Your task to perform on an android device: When is my next appointment? Image 0: 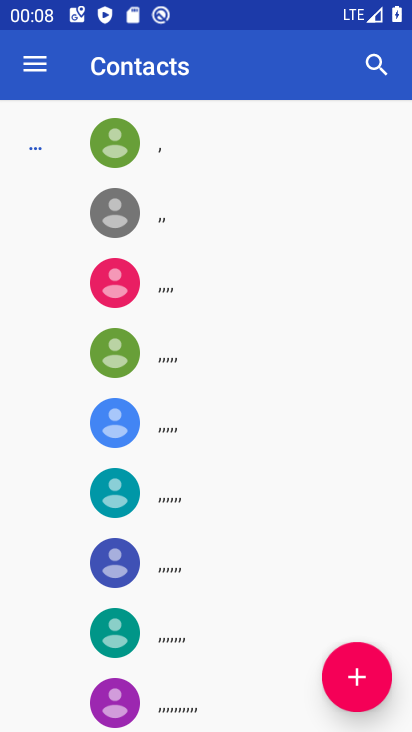
Step 0: drag from (272, 638) to (180, 214)
Your task to perform on an android device: When is my next appointment? Image 1: 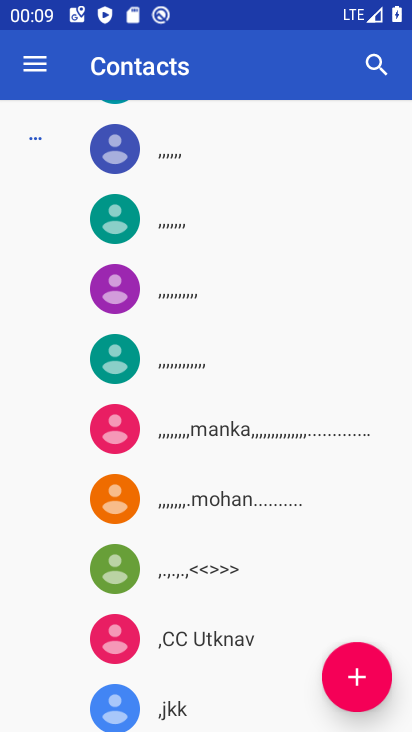
Step 1: press home button
Your task to perform on an android device: When is my next appointment? Image 2: 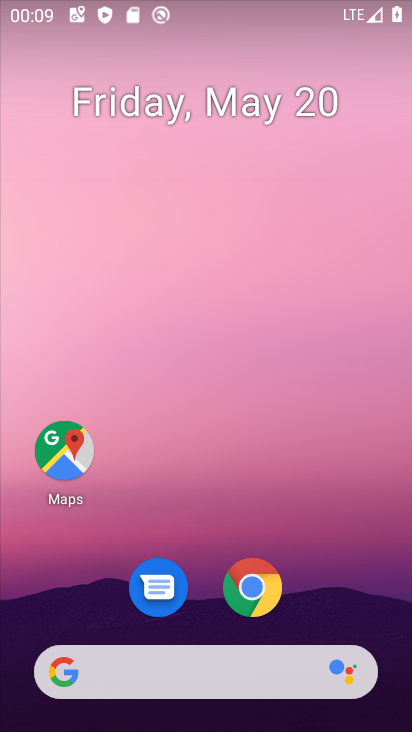
Step 2: drag from (244, 687) to (200, 199)
Your task to perform on an android device: When is my next appointment? Image 3: 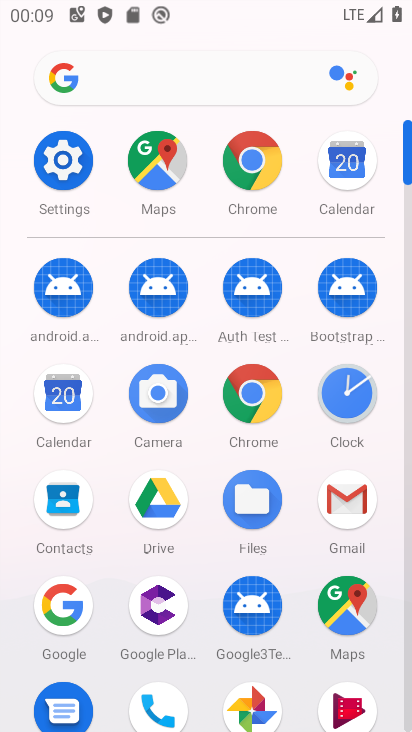
Step 3: click (76, 399)
Your task to perform on an android device: When is my next appointment? Image 4: 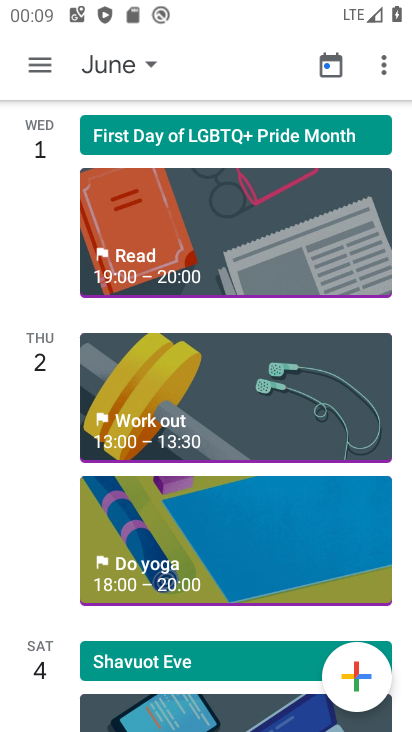
Step 4: click (36, 58)
Your task to perform on an android device: When is my next appointment? Image 5: 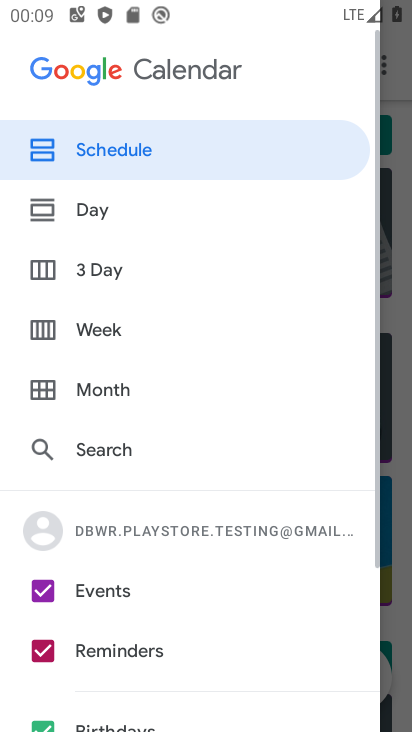
Step 5: click (119, 390)
Your task to perform on an android device: When is my next appointment? Image 6: 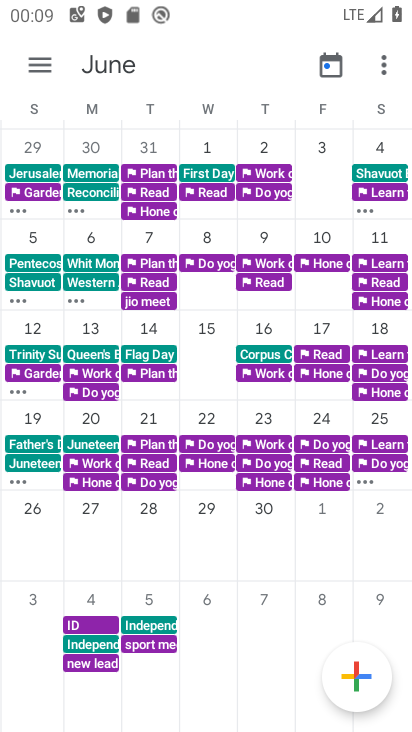
Step 6: drag from (22, 322) to (394, 330)
Your task to perform on an android device: When is my next appointment? Image 7: 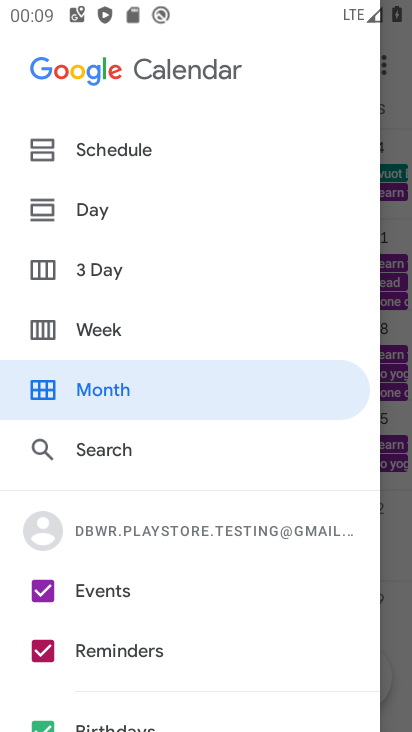
Step 7: drag from (382, 369) to (40, 376)
Your task to perform on an android device: When is my next appointment? Image 8: 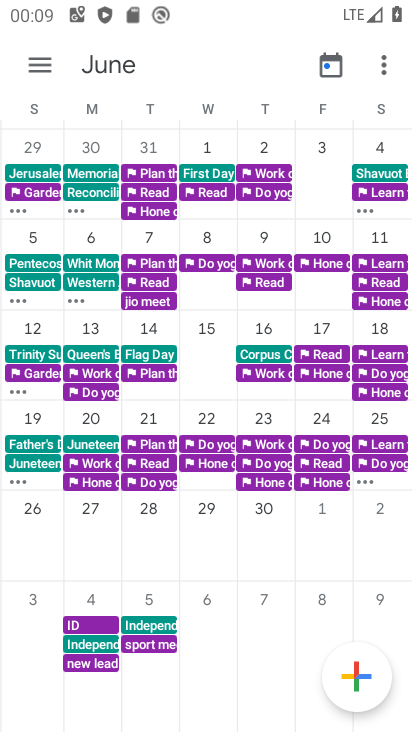
Step 8: drag from (130, 398) to (0, 458)
Your task to perform on an android device: When is my next appointment? Image 9: 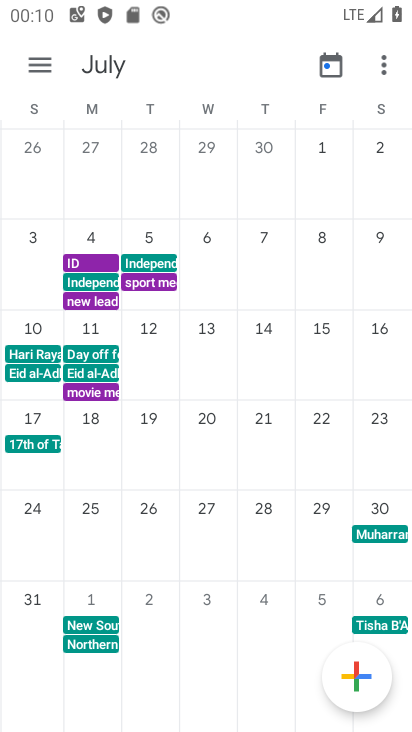
Step 9: drag from (42, 421) to (411, 407)
Your task to perform on an android device: When is my next appointment? Image 10: 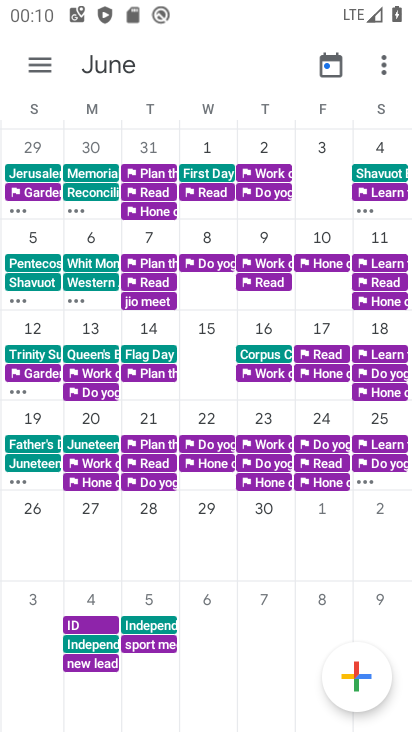
Step 10: drag from (52, 413) to (366, 504)
Your task to perform on an android device: When is my next appointment? Image 11: 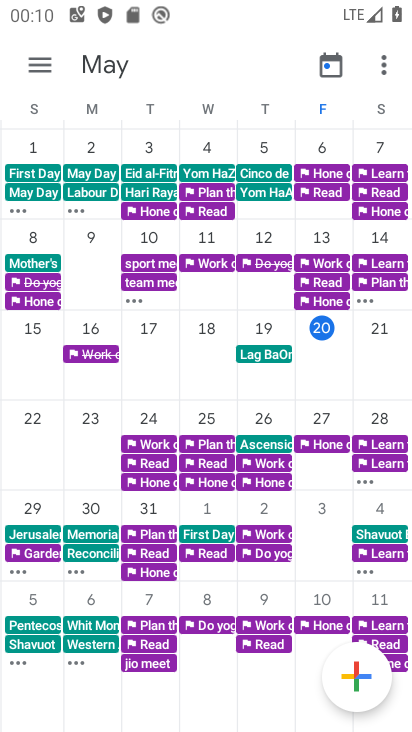
Step 11: click (321, 333)
Your task to perform on an android device: When is my next appointment? Image 12: 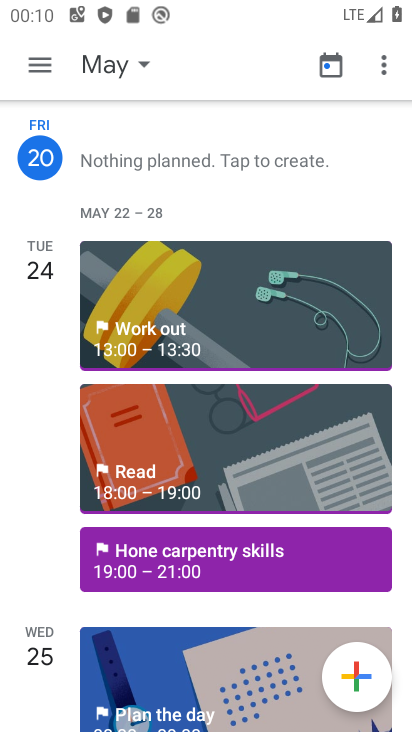
Step 12: task complete